Your task to perform on an android device: turn on wifi Image 0: 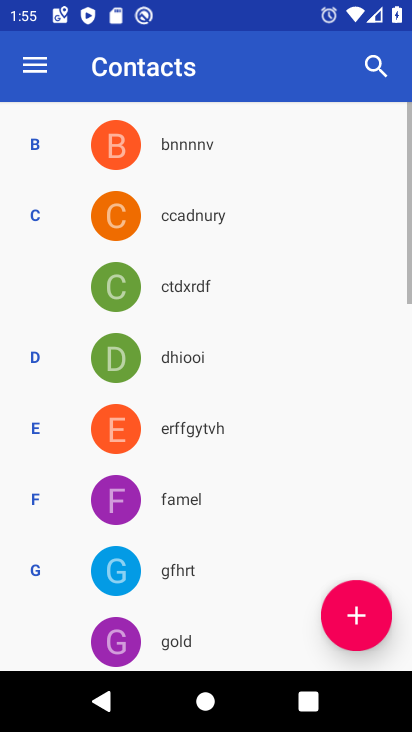
Step 0: press home button
Your task to perform on an android device: turn on wifi Image 1: 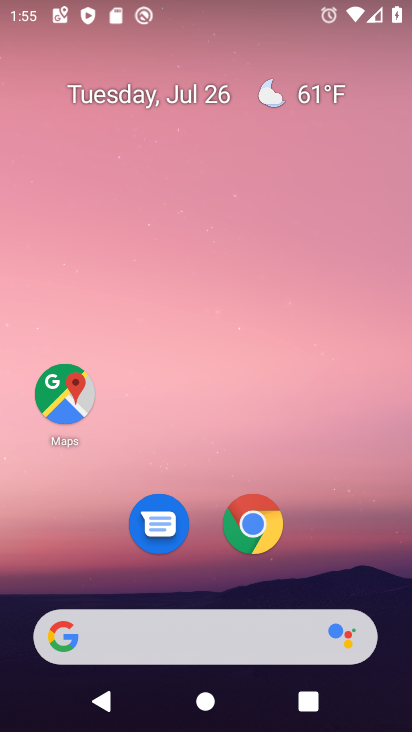
Step 1: drag from (156, 586) to (276, 123)
Your task to perform on an android device: turn on wifi Image 2: 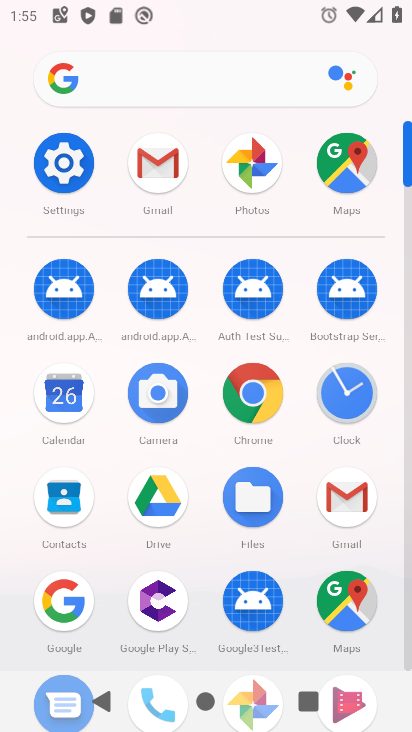
Step 2: click (68, 175)
Your task to perform on an android device: turn on wifi Image 3: 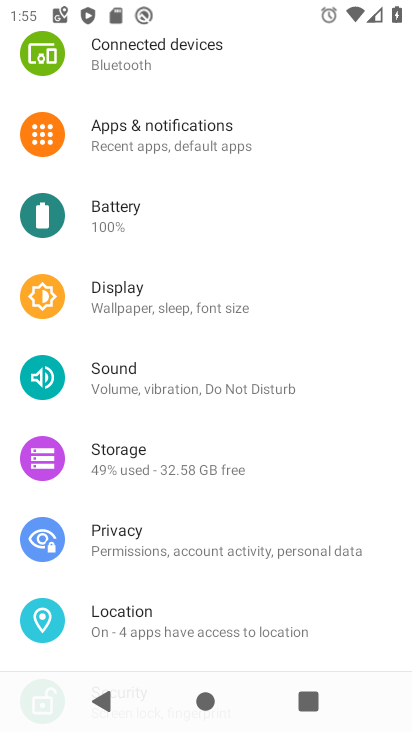
Step 3: drag from (310, 99) to (170, 610)
Your task to perform on an android device: turn on wifi Image 4: 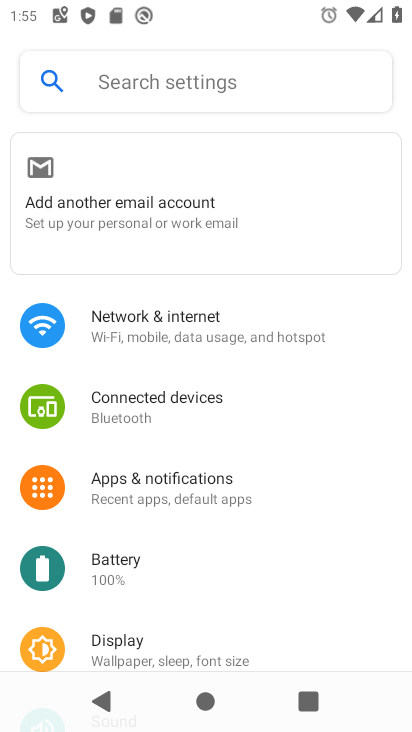
Step 4: click (205, 319)
Your task to perform on an android device: turn on wifi Image 5: 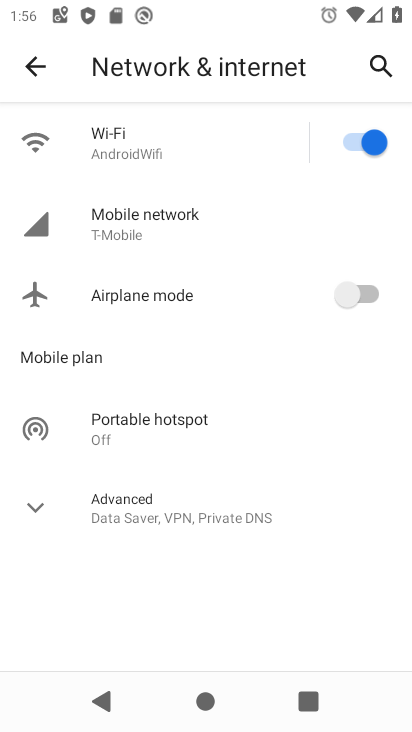
Step 5: task complete